Your task to perform on an android device: turn notification dots on Image 0: 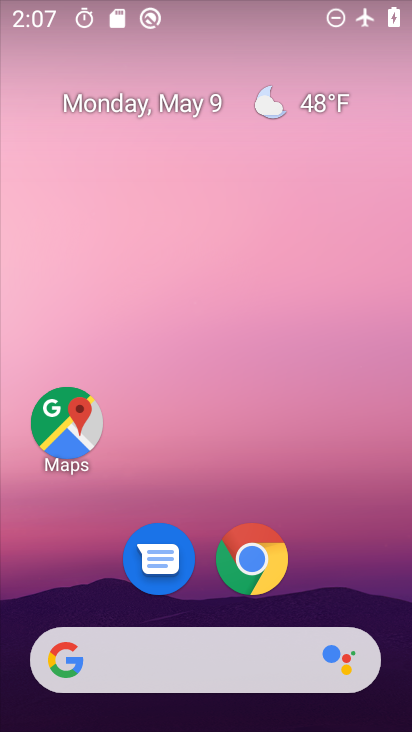
Step 0: drag from (206, 603) to (335, 71)
Your task to perform on an android device: turn notification dots on Image 1: 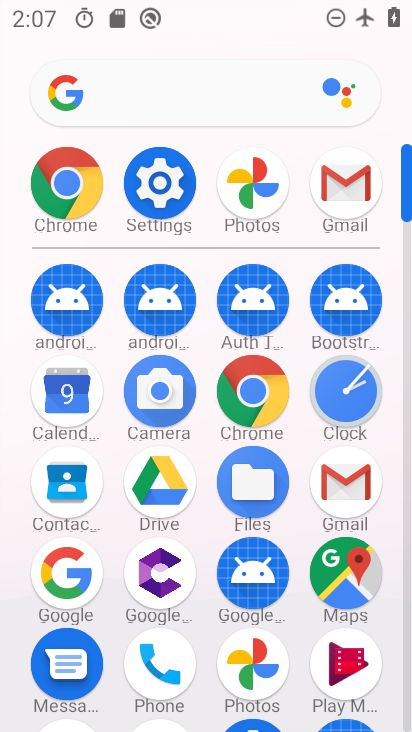
Step 1: drag from (206, 626) to (204, 194)
Your task to perform on an android device: turn notification dots on Image 2: 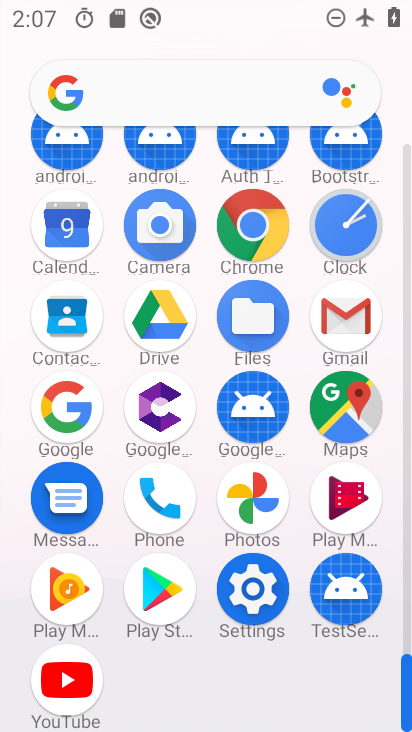
Step 2: click (248, 597)
Your task to perform on an android device: turn notification dots on Image 3: 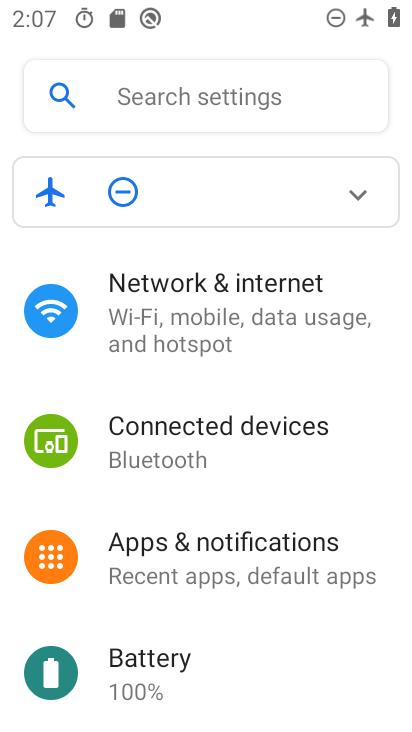
Step 3: drag from (207, 516) to (323, 123)
Your task to perform on an android device: turn notification dots on Image 4: 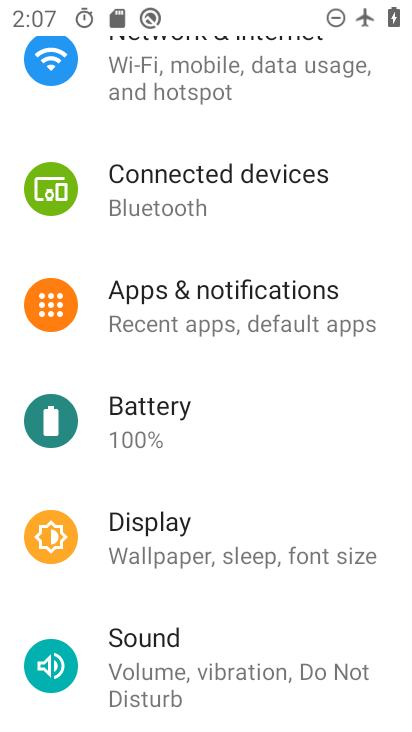
Step 4: drag from (204, 613) to (273, 289)
Your task to perform on an android device: turn notification dots on Image 5: 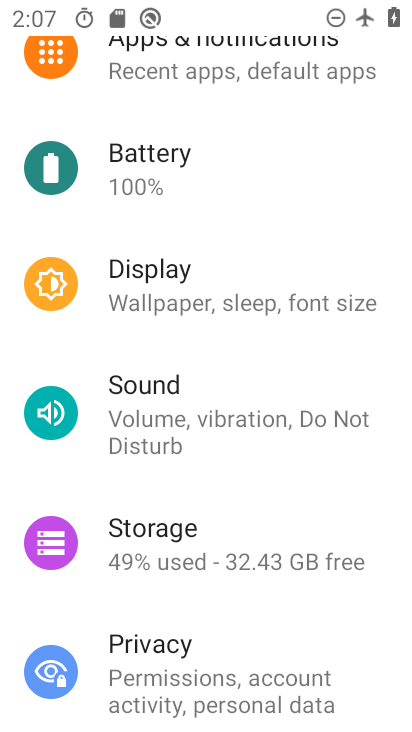
Step 5: click (252, 590)
Your task to perform on an android device: turn notification dots on Image 6: 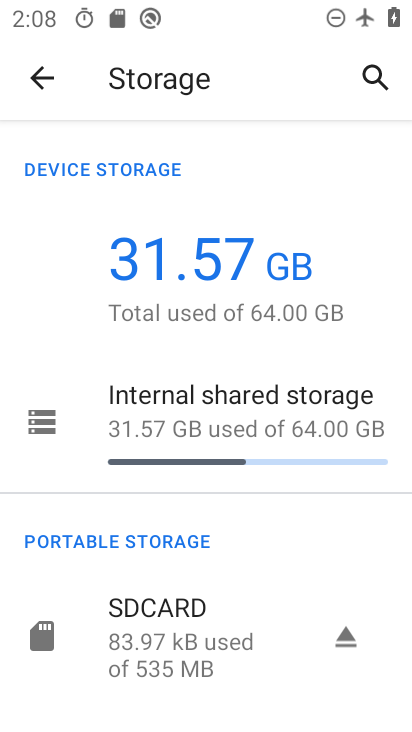
Step 6: click (43, 60)
Your task to perform on an android device: turn notification dots on Image 7: 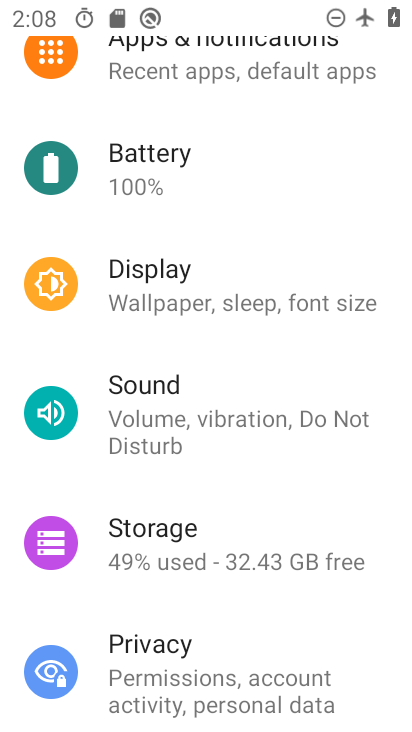
Step 7: drag from (234, 575) to (353, 23)
Your task to perform on an android device: turn notification dots on Image 8: 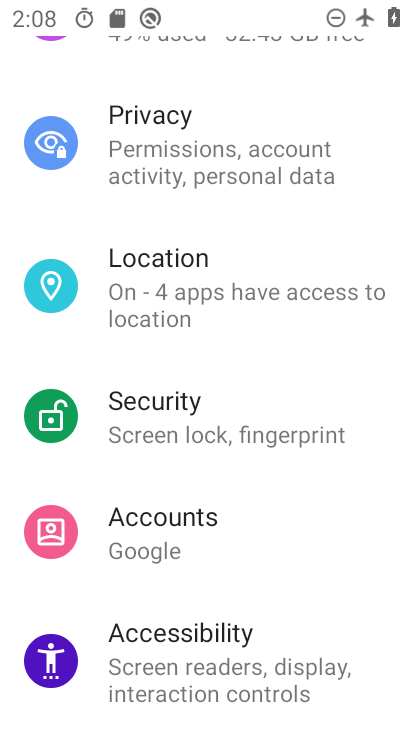
Step 8: drag from (268, 627) to (315, 124)
Your task to perform on an android device: turn notification dots on Image 9: 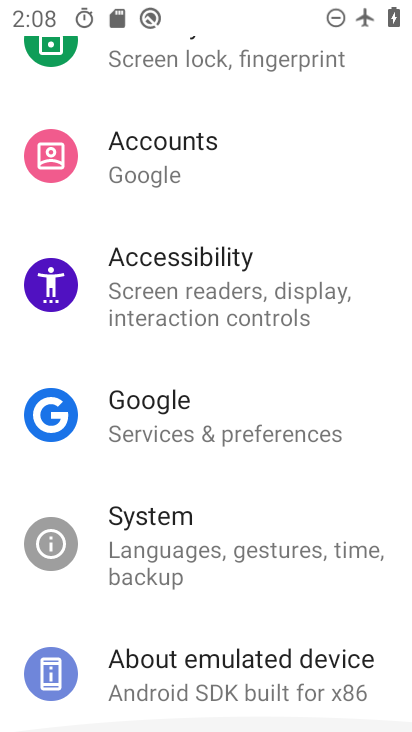
Step 9: drag from (317, 125) to (288, 724)
Your task to perform on an android device: turn notification dots on Image 10: 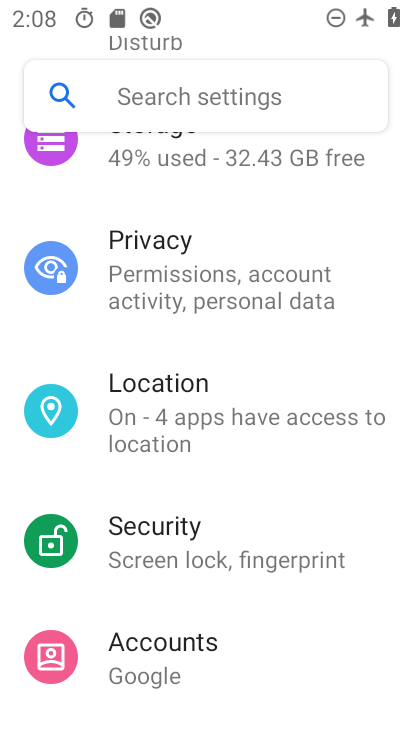
Step 10: drag from (228, 239) to (261, 731)
Your task to perform on an android device: turn notification dots on Image 11: 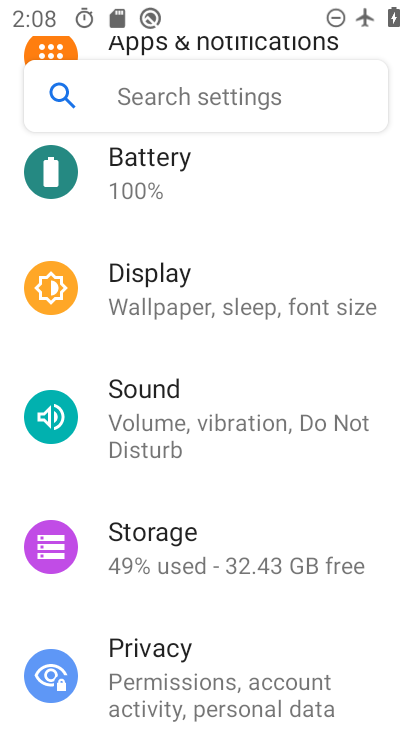
Step 11: drag from (192, 187) to (252, 660)
Your task to perform on an android device: turn notification dots on Image 12: 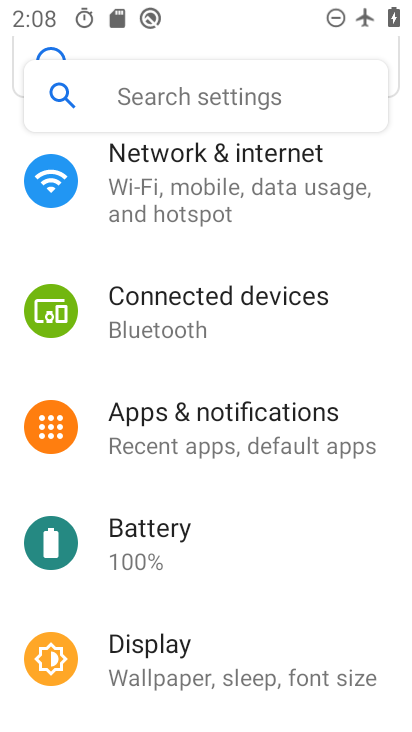
Step 12: click (183, 409)
Your task to perform on an android device: turn notification dots on Image 13: 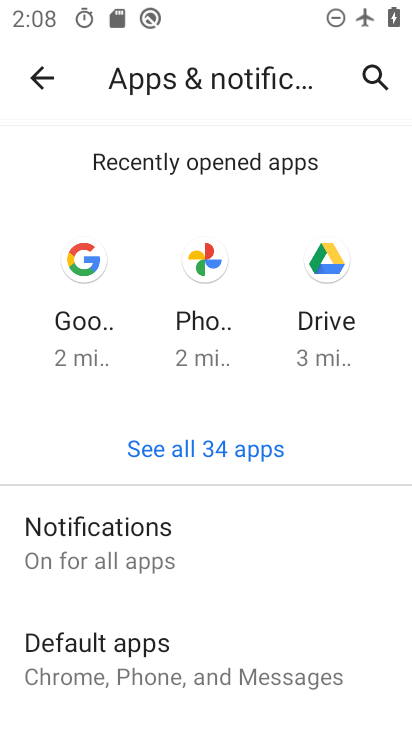
Step 13: click (184, 546)
Your task to perform on an android device: turn notification dots on Image 14: 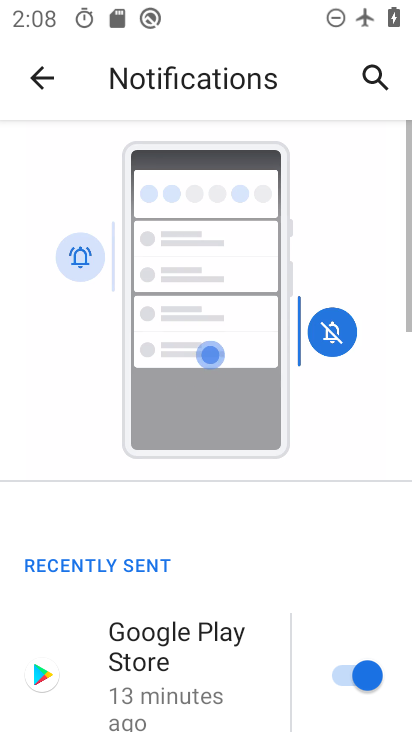
Step 14: drag from (200, 587) to (348, 2)
Your task to perform on an android device: turn notification dots on Image 15: 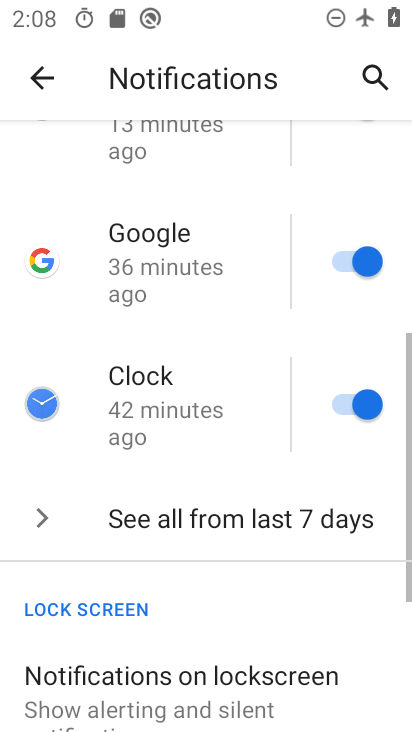
Step 15: drag from (233, 503) to (345, 80)
Your task to perform on an android device: turn notification dots on Image 16: 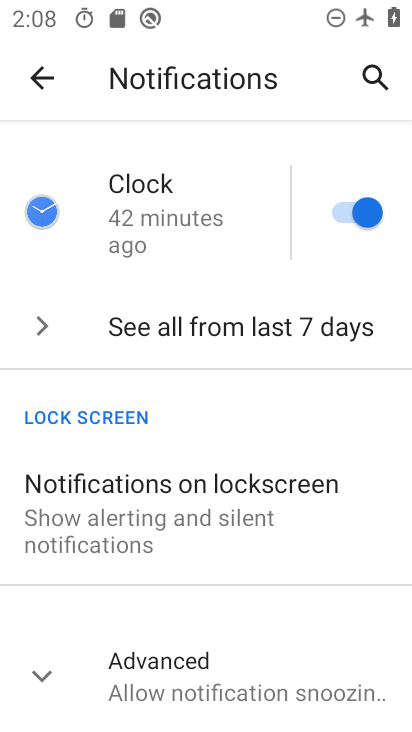
Step 16: click (172, 659)
Your task to perform on an android device: turn notification dots on Image 17: 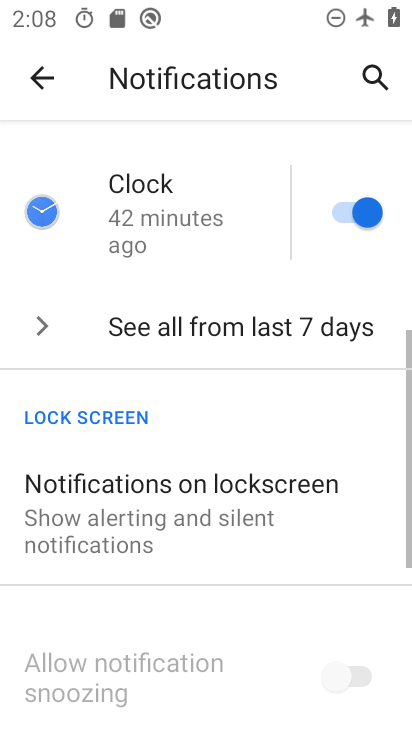
Step 17: drag from (172, 659) to (336, 25)
Your task to perform on an android device: turn notification dots on Image 18: 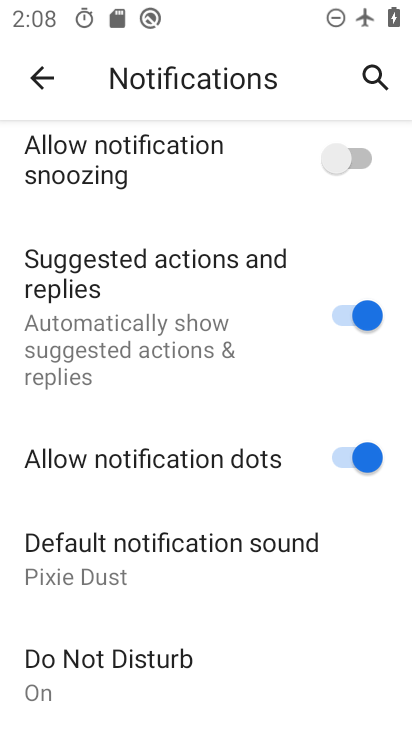
Step 18: drag from (236, 705) to (326, 176)
Your task to perform on an android device: turn notification dots on Image 19: 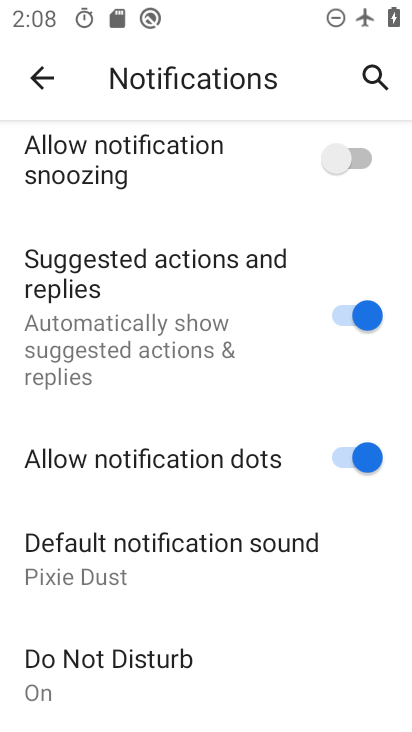
Step 19: drag from (20, 604) to (241, 197)
Your task to perform on an android device: turn notification dots on Image 20: 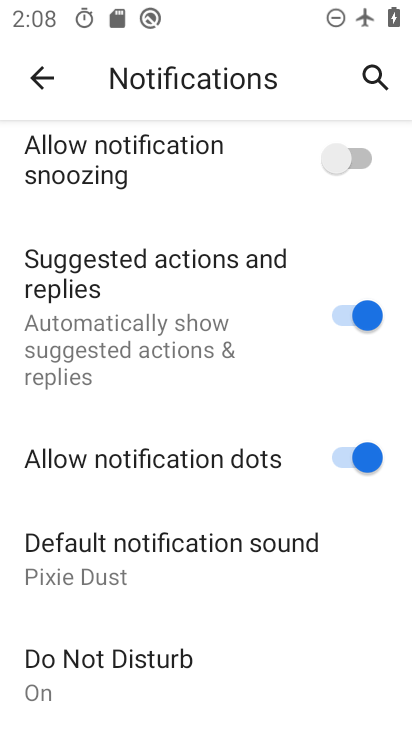
Step 20: click (347, 459)
Your task to perform on an android device: turn notification dots on Image 21: 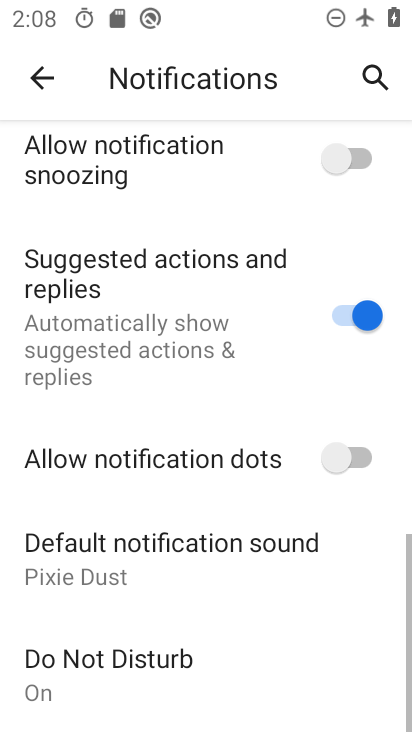
Step 21: click (349, 455)
Your task to perform on an android device: turn notification dots on Image 22: 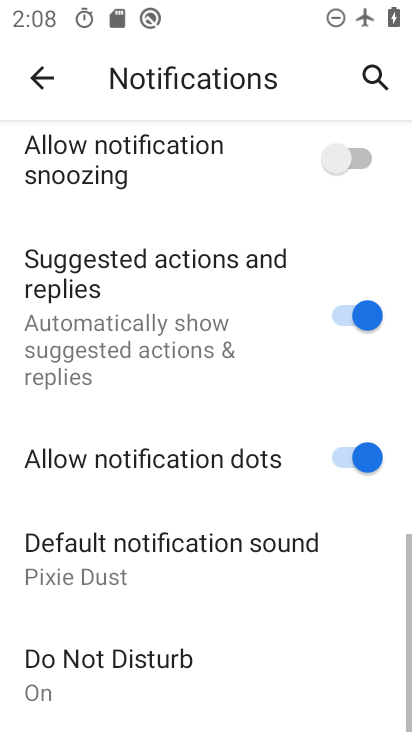
Step 22: task complete